Your task to perform on an android device: Go to ESPN.com Image 0: 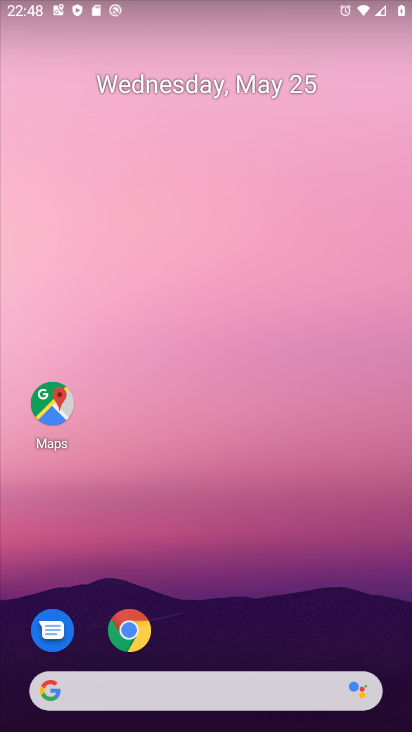
Step 0: click (139, 634)
Your task to perform on an android device: Go to ESPN.com Image 1: 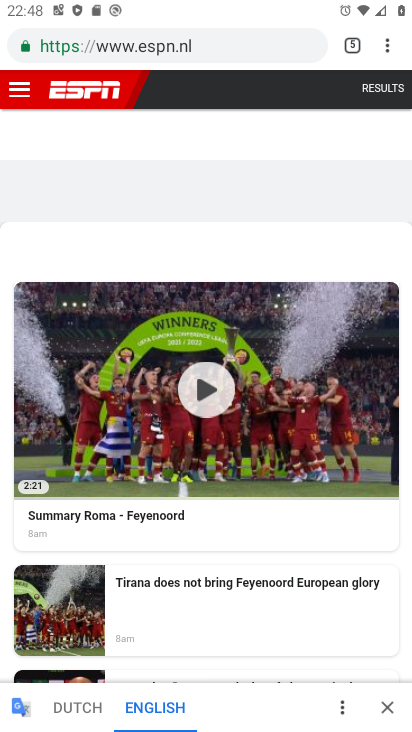
Step 1: task complete